Your task to perform on an android device: open chrome and create a bookmark for the current page Image 0: 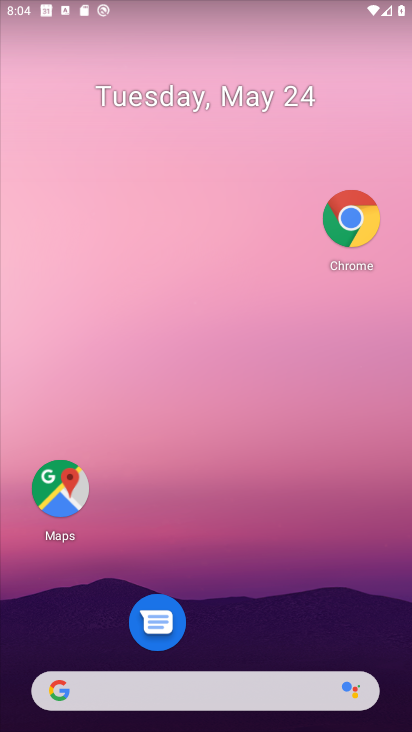
Step 0: press home button
Your task to perform on an android device: open chrome and create a bookmark for the current page Image 1: 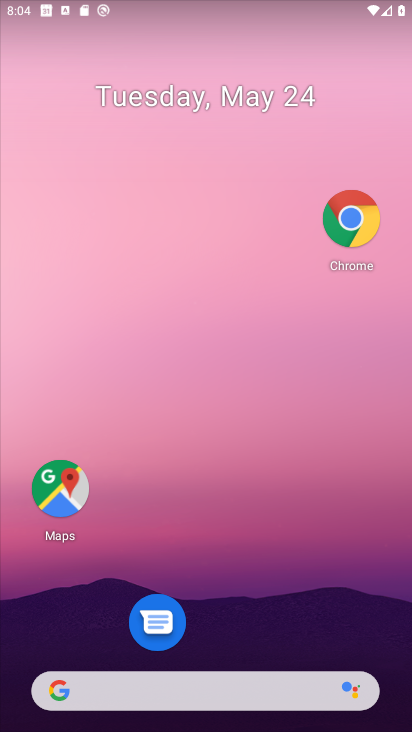
Step 1: drag from (245, 614) to (169, 190)
Your task to perform on an android device: open chrome and create a bookmark for the current page Image 2: 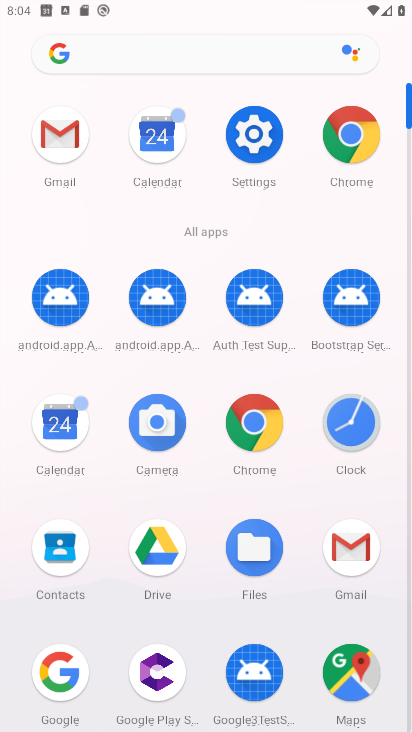
Step 2: click (382, 154)
Your task to perform on an android device: open chrome and create a bookmark for the current page Image 3: 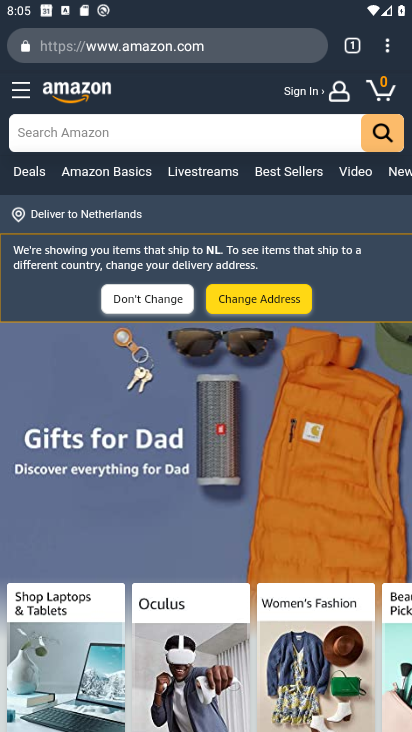
Step 3: click (386, 57)
Your task to perform on an android device: open chrome and create a bookmark for the current page Image 4: 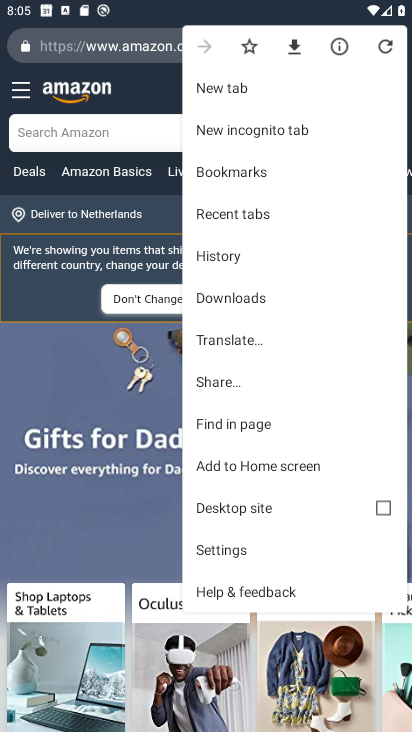
Step 4: click (256, 169)
Your task to perform on an android device: open chrome and create a bookmark for the current page Image 5: 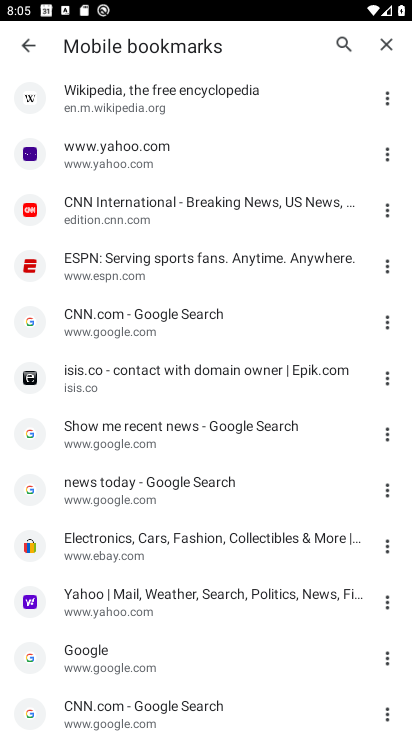
Step 5: task complete